Your task to perform on an android device: Open settings on Google Maps Image 0: 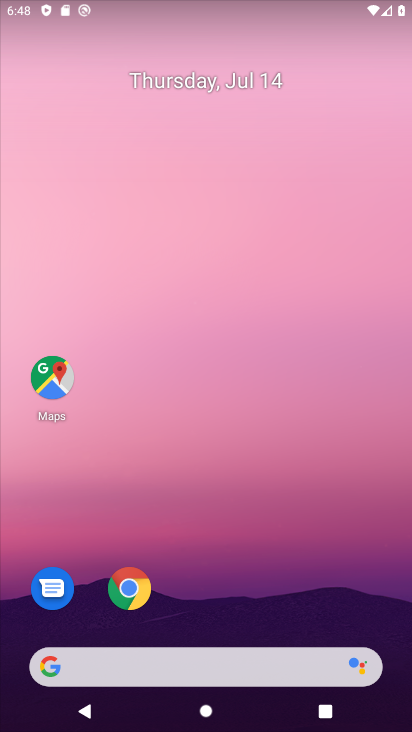
Step 0: drag from (396, 627) to (250, 60)
Your task to perform on an android device: Open settings on Google Maps Image 1: 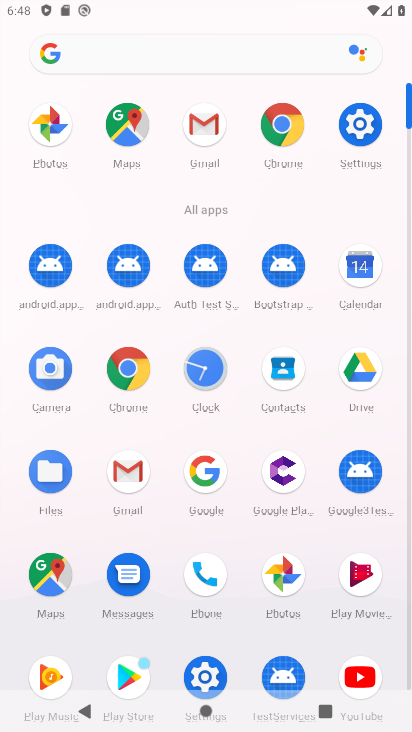
Step 1: click (47, 572)
Your task to perform on an android device: Open settings on Google Maps Image 2: 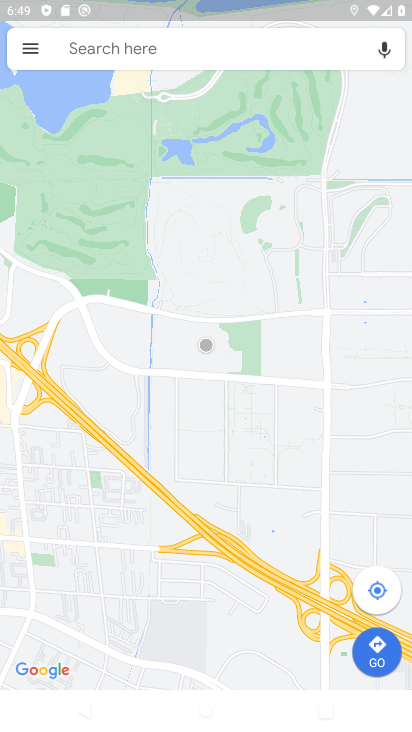
Step 2: click (31, 44)
Your task to perform on an android device: Open settings on Google Maps Image 3: 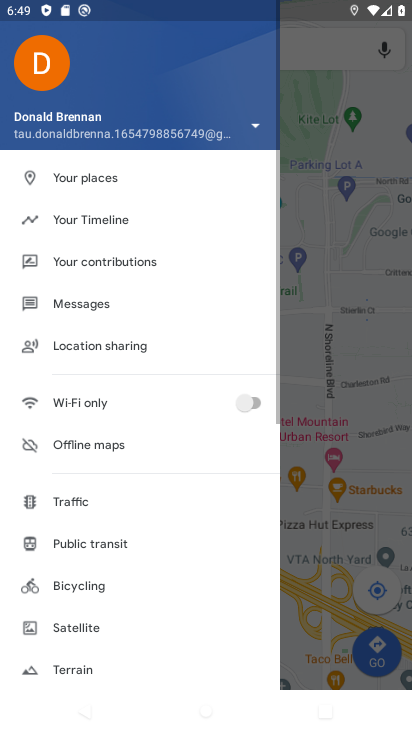
Step 3: drag from (64, 640) to (119, 134)
Your task to perform on an android device: Open settings on Google Maps Image 4: 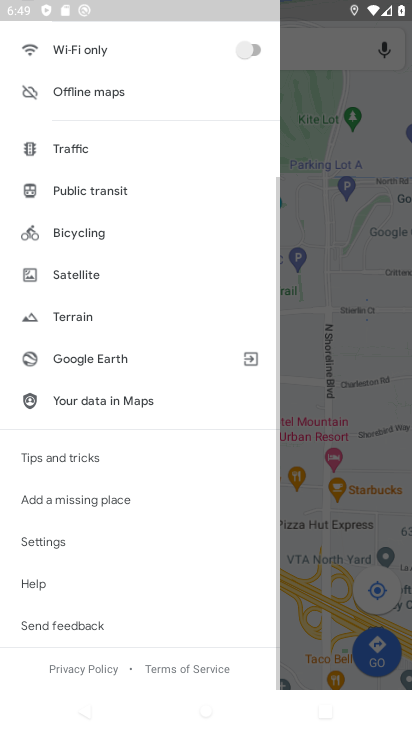
Step 4: click (36, 533)
Your task to perform on an android device: Open settings on Google Maps Image 5: 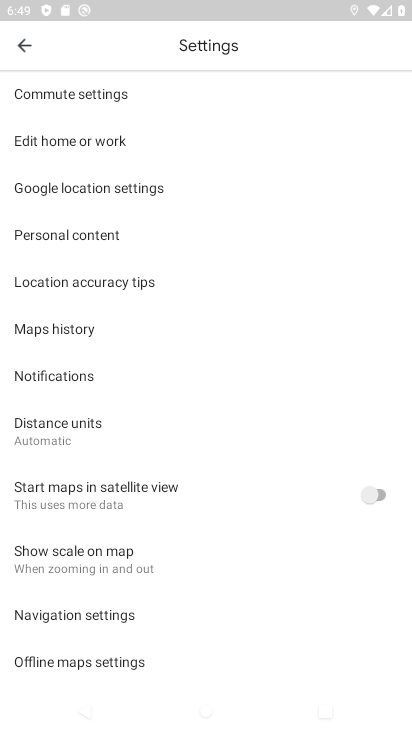
Step 5: task complete